Your task to perform on an android device: What's the weather? Image 0: 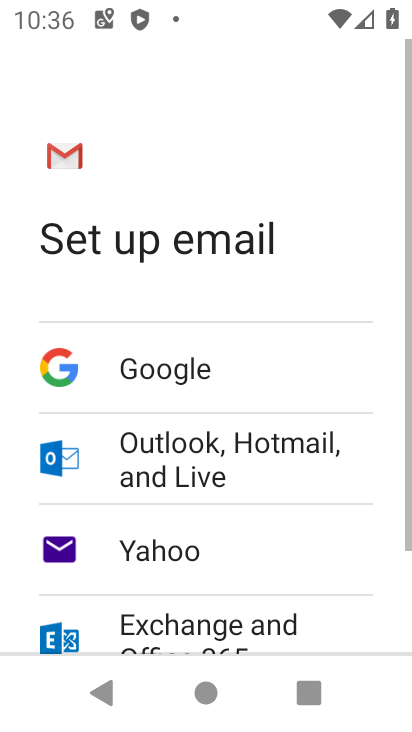
Step 0: press home button
Your task to perform on an android device: What's the weather? Image 1: 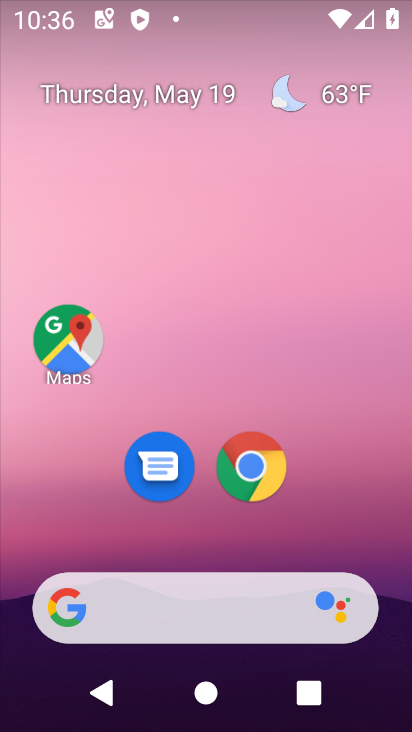
Step 1: drag from (389, 621) to (309, 100)
Your task to perform on an android device: What's the weather? Image 2: 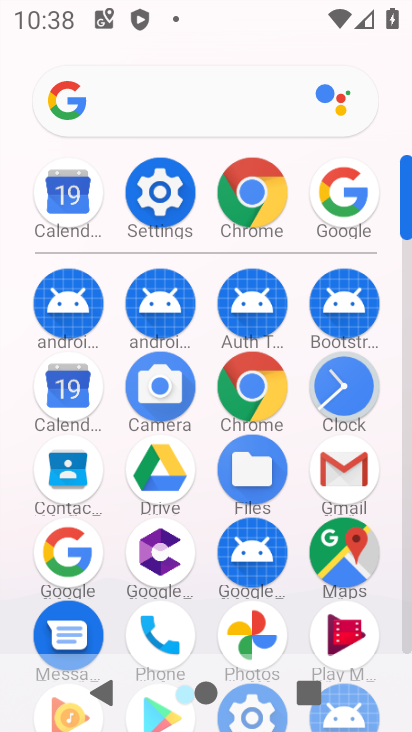
Step 2: click (69, 557)
Your task to perform on an android device: What's the weather? Image 3: 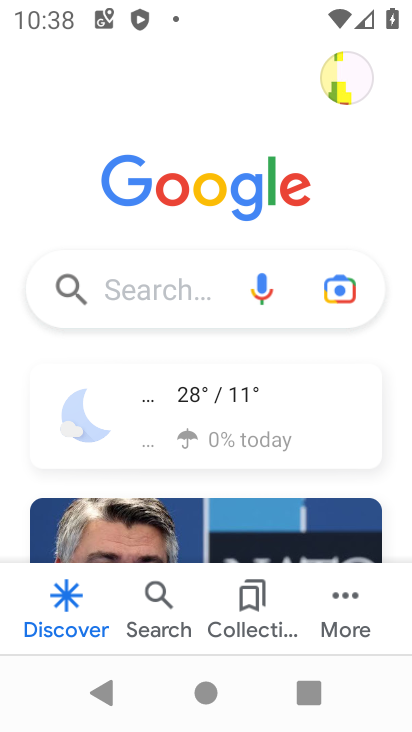
Step 3: click (152, 309)
Your task to perform on an android device: What's the weather? Image 4: 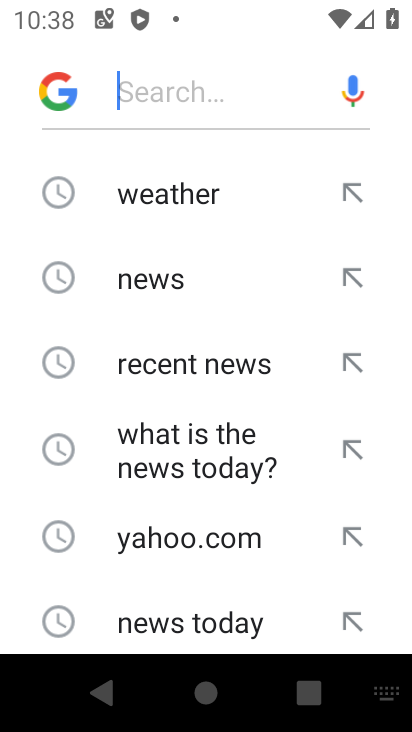
Step 4: click (195, 207)
Your task to perform on an android device: What's the weather? Image 5: 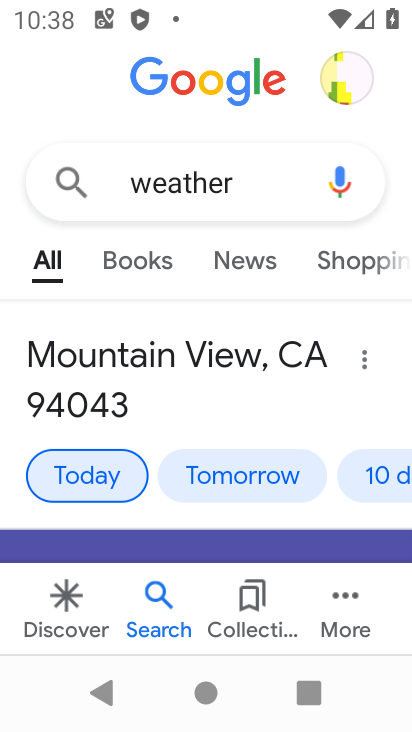
Step 5: task complete